Your task to perform on an android device: Open sound settings Image 0: 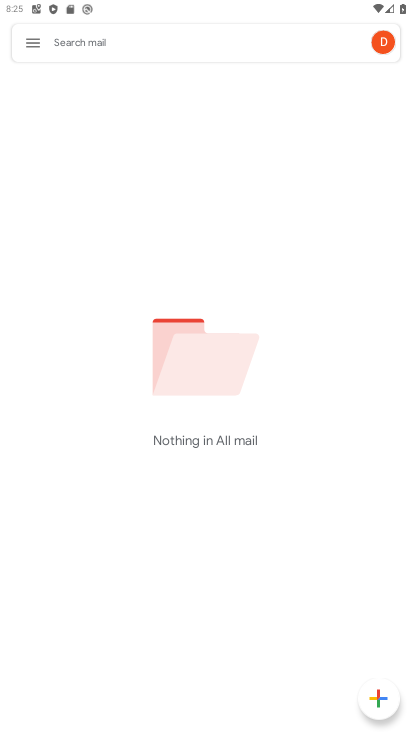
Step 0: press home button
Your task to perform on an android device: Open sound settings Image 1: 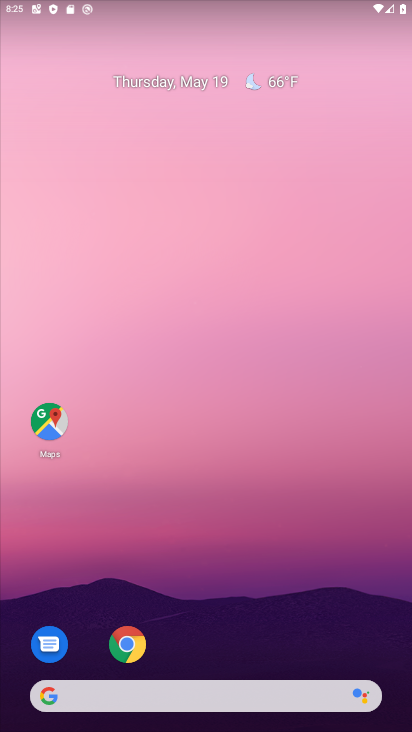
Step 1: drag from (290, 592) to (253, 123)
Your task to perform on an android device: Open sound settings Image 2: 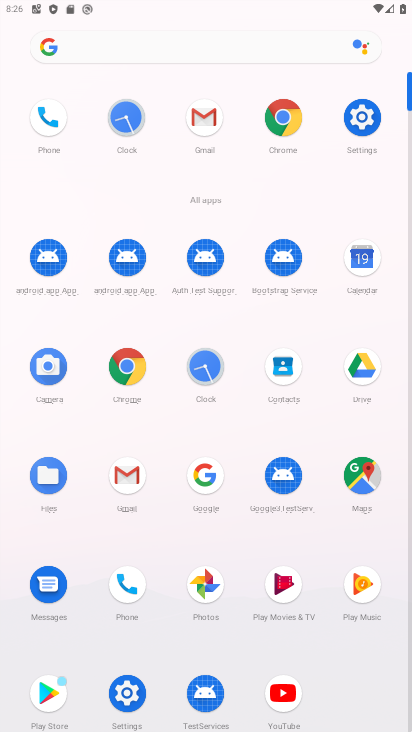
Step 2: click (354, 122)
Your task to perform on an android device: Open sound settings Image 3: 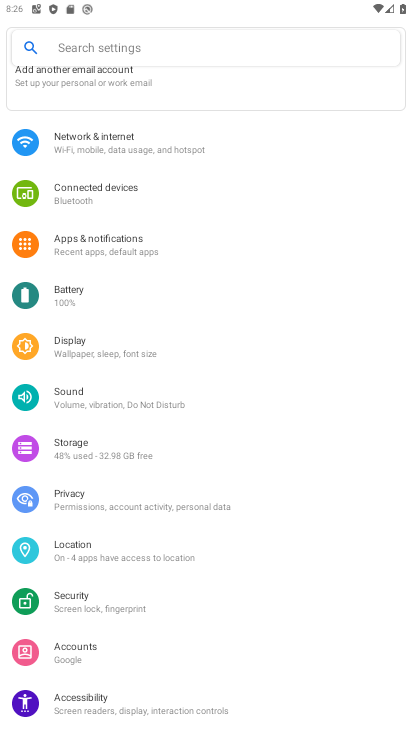
Step 3: click (99, 392)
Your task to perform on an android device: Open sound settings Image 4: 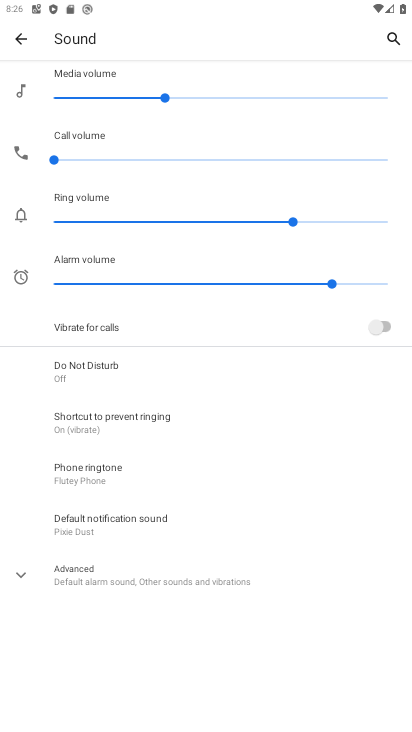
Step 4: task complete